Your task to perform on an android device: Open Google Maps Image 0: 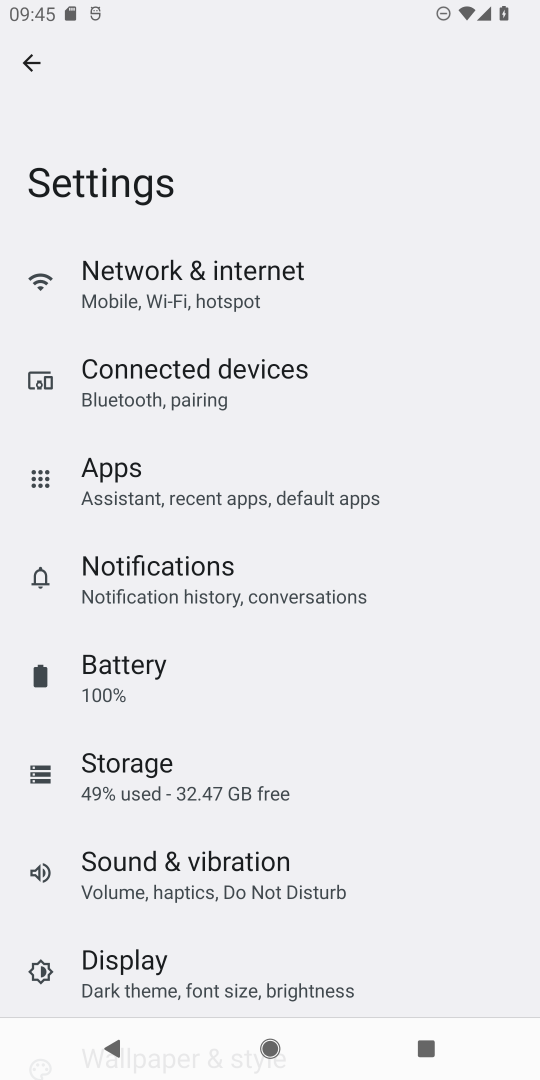
Step 0: press home button
Your task to perform on an android device: Open Google Maps Image 1: 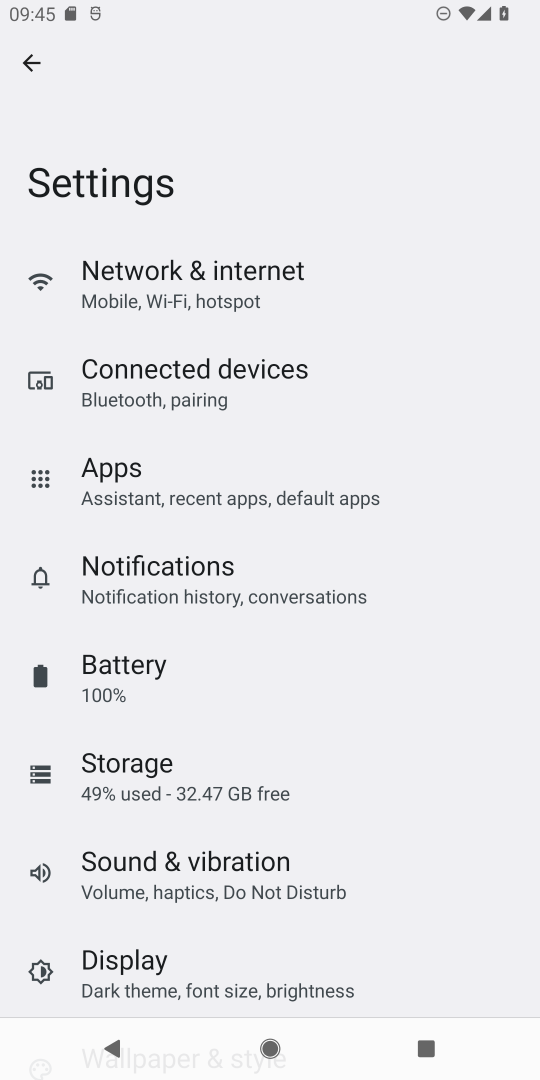
Step 1: press home button
Your task to perform on an android device: Open Google Maps Image 2: 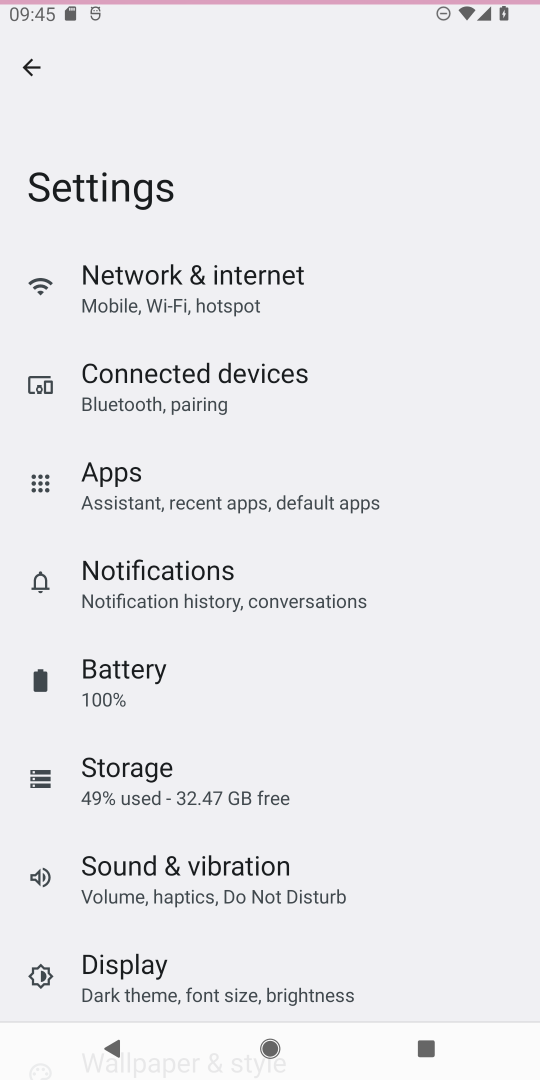
Step 2: press home button
Your task to perform on an android device: Open Google Maps Image 3: 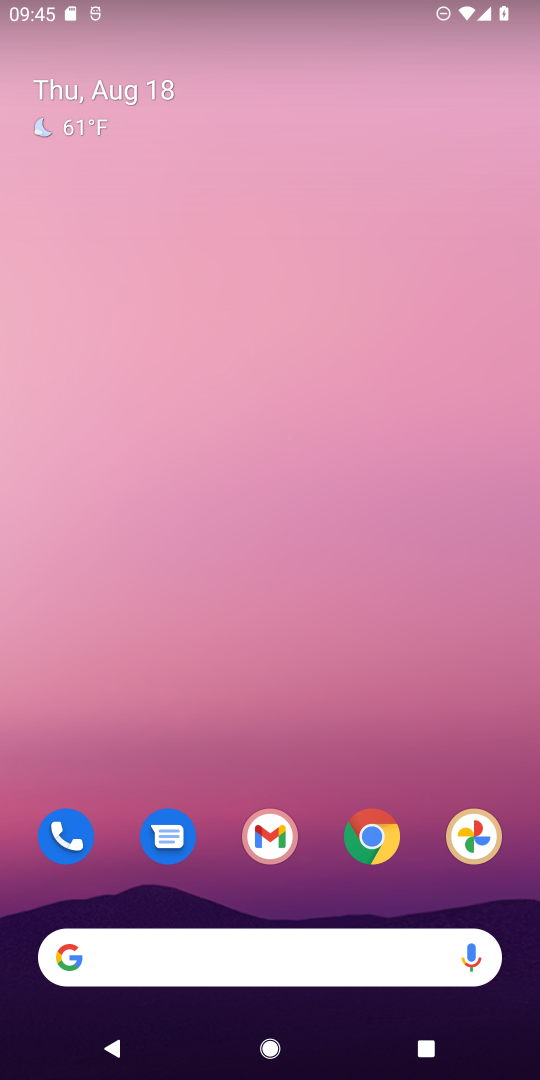
Step 3: drag from (332, 882) to (418, 13)
Your task to perform on an android device: Open Google Maps Image 4: 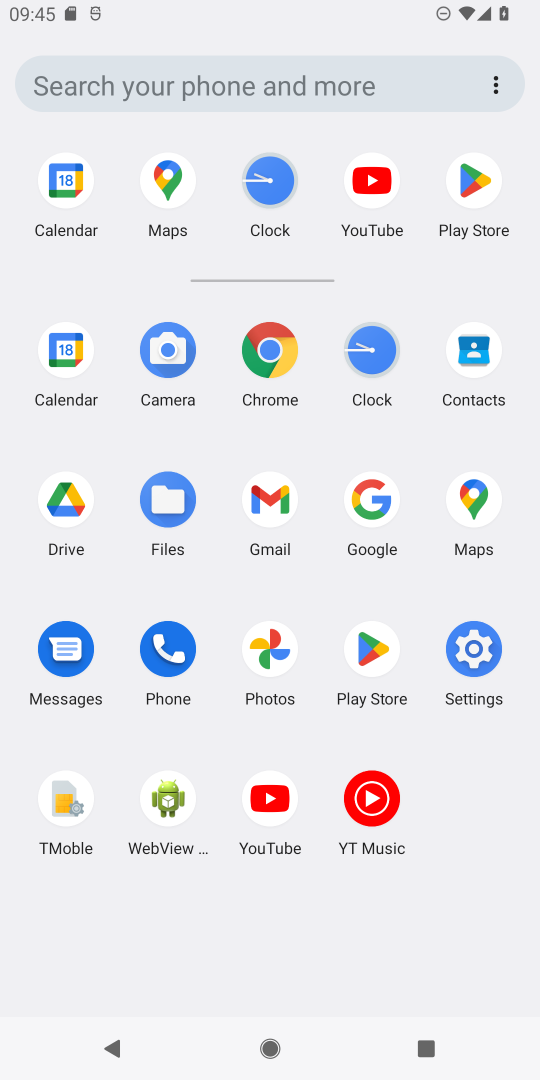
Step 4: click (490, 488)
Your task to perform on an android device: Open Google Maps Image 5: 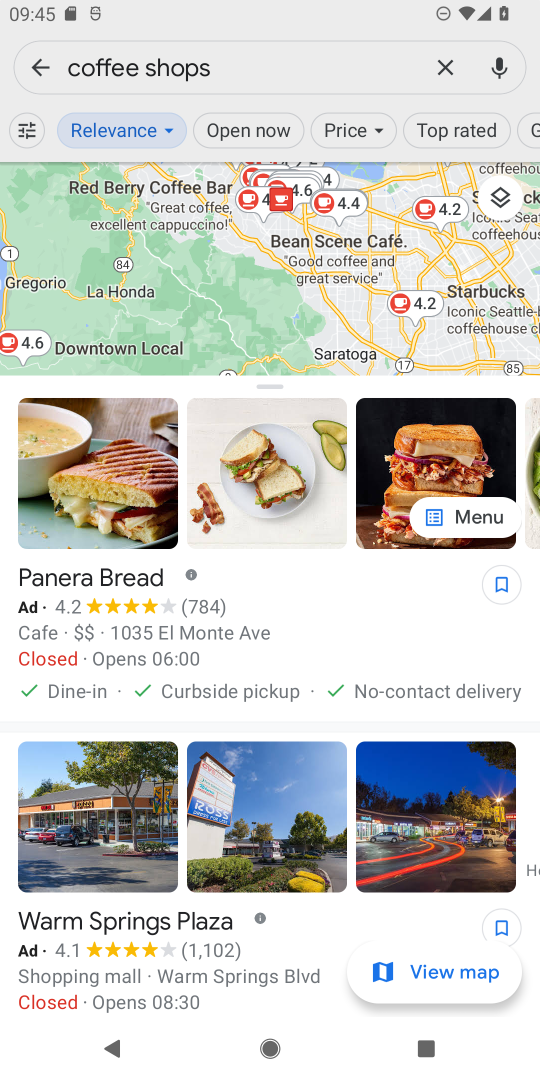
Step 5: task complete